Your task to perform on an android device: set the timer Image 0: 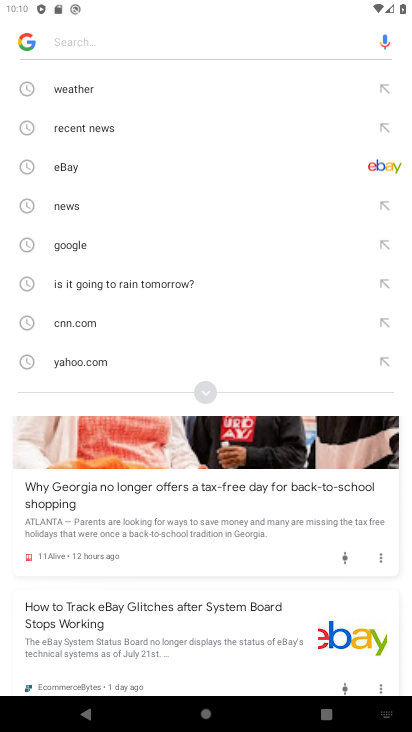
Step 0: press home button
Your task to perform on an android device: set the timer Image 1: 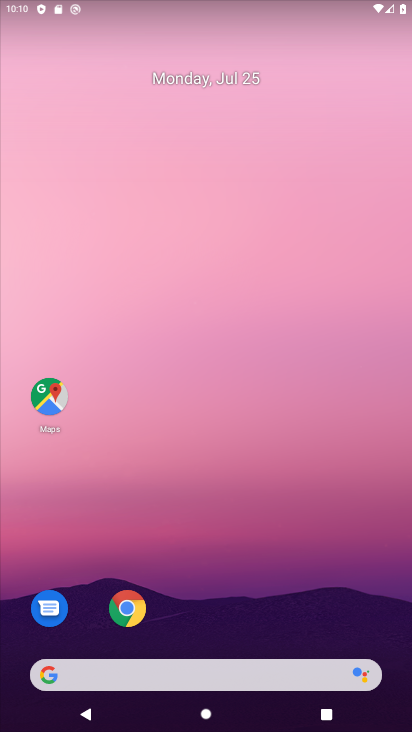
Step 1: drag from (225, 674) to (331, 180)
Your task to perform on an android device: set the timer Image 2: 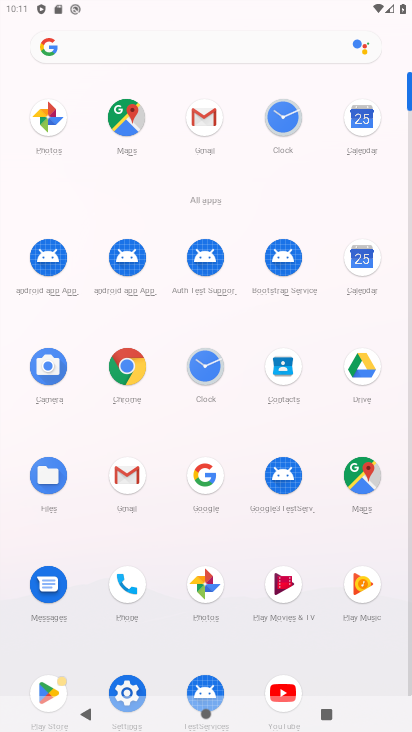
Step 2: click (281, 119)
Your task to perform on an android device: set the timer Image 3: 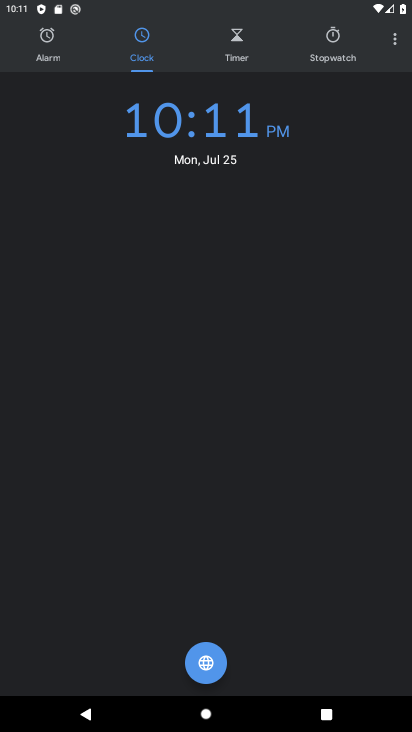
Step 3: click (239, 40)
Your task to perform on an android device: set the timer Image 4: 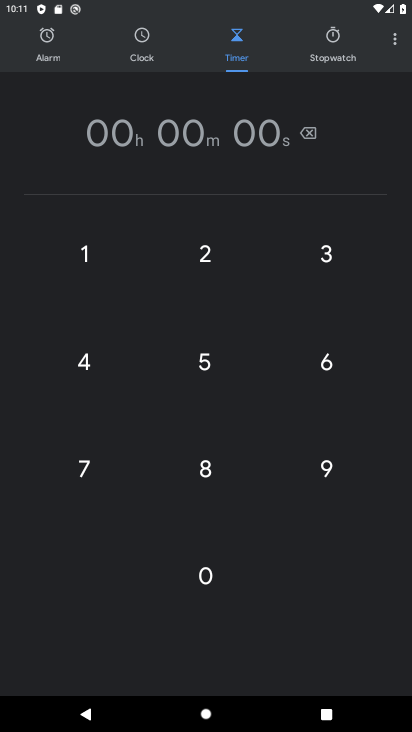
Step 4: type "147"
Your task to perform on an android device: set the timer Image 5: 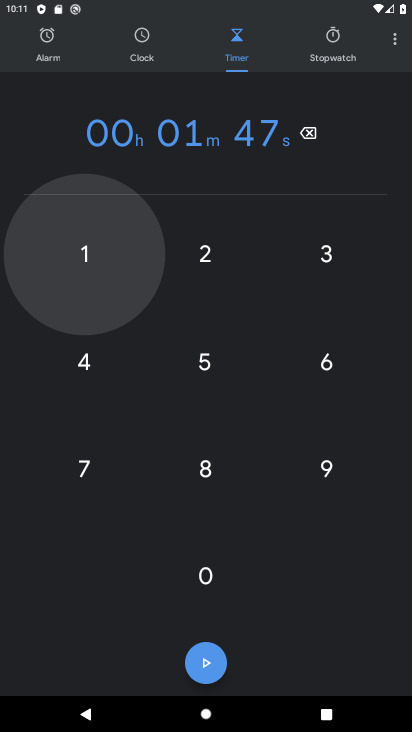
Step 5: click (206, 668)
Your task to perform on an android device: set the timer Image 6: 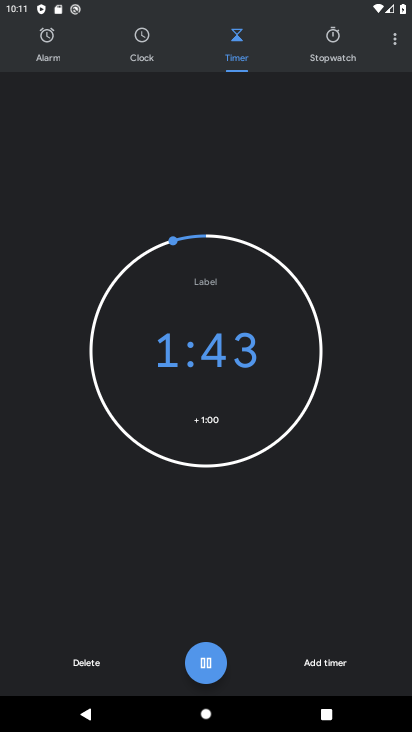
Step 6: click (206, 668)
Your task to perform on an android device: set the timer Image 7: 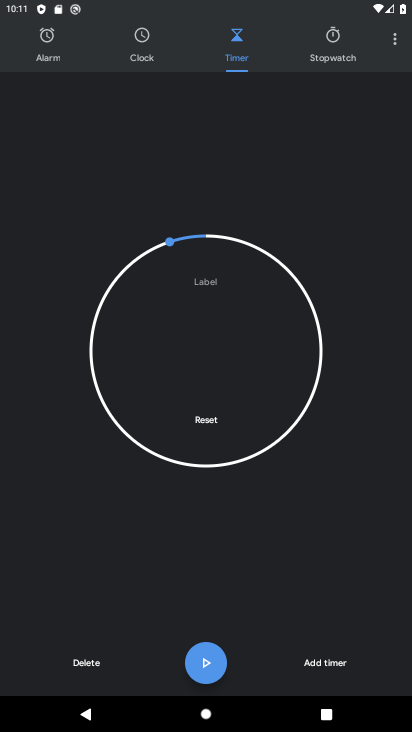
Step 7: task complete